Your task to perform on an android device: Open Google Image 0: 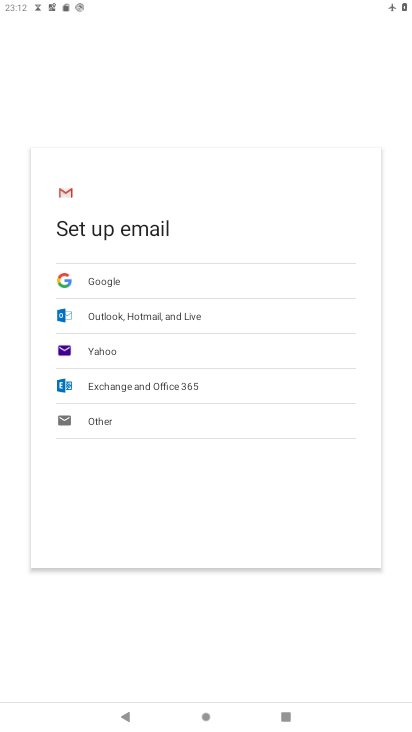
Step 0: press home button
Your task to perform on an android device: Open Google Image 1: 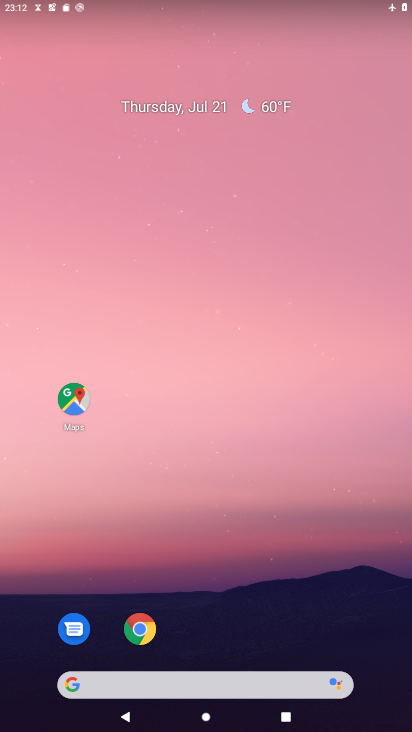
Step 1: drag from (191, 599) to (233, 93)
Your task to perform on an android device: Open Google Image 2: 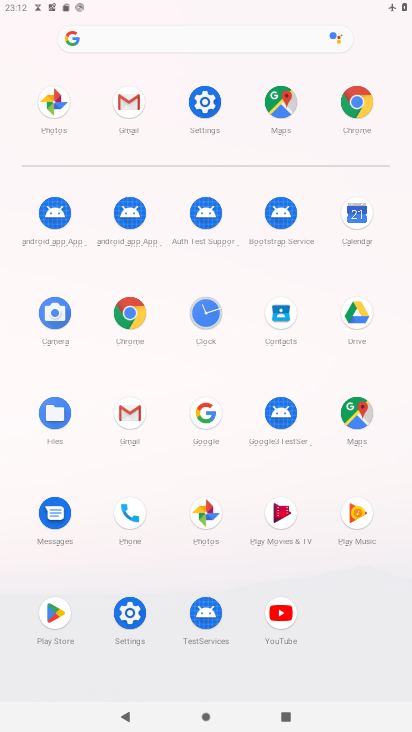
Step 2: click (203, 410)
Your task to perform on an android device: Open Google Image 3: 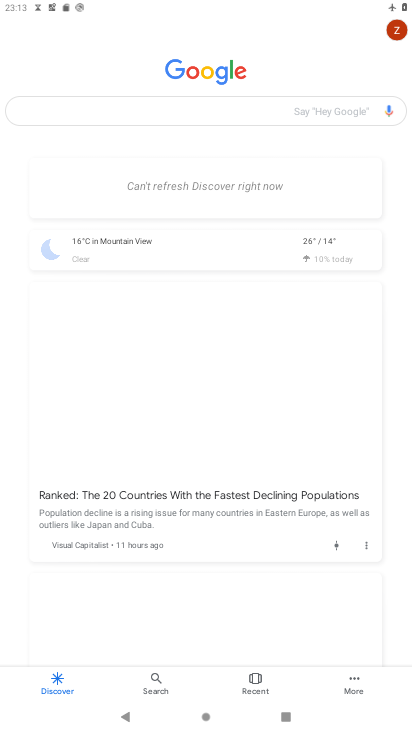
Step 3: task complete